Your task to perform on an android device: turn notification dots on Image 0: 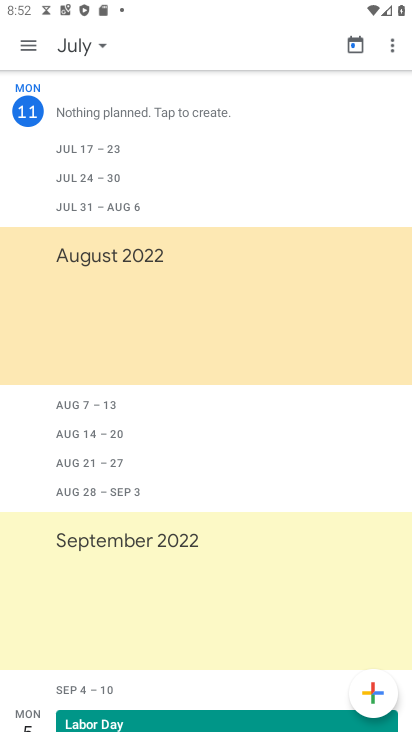
Step 0: press home button
Your task to perform on an android device: turn notification dots on Image 1: 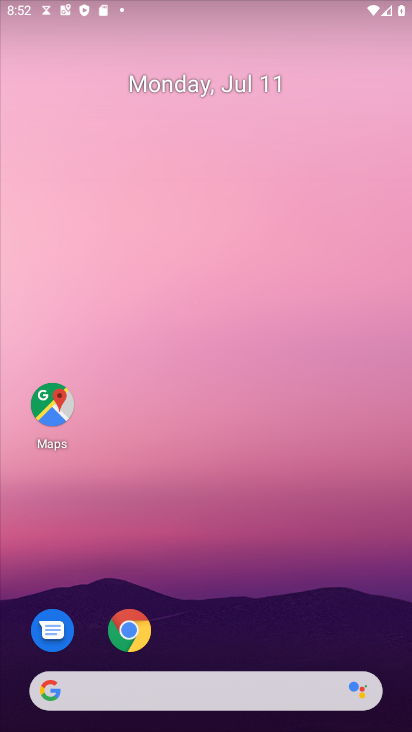
Step 1: drag from (225, 649) to (267, 4)
Your task to perform on an android device: turn notification dots on Image 2: 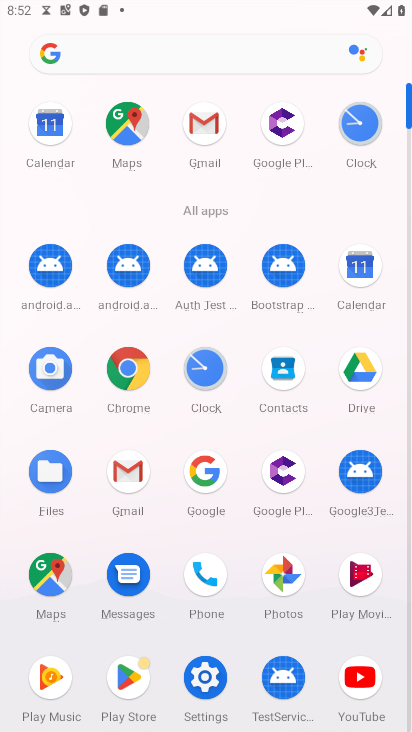
Step 2: click (203, 676)
Your task to perform on an android device: turn notification dots on Image 3: 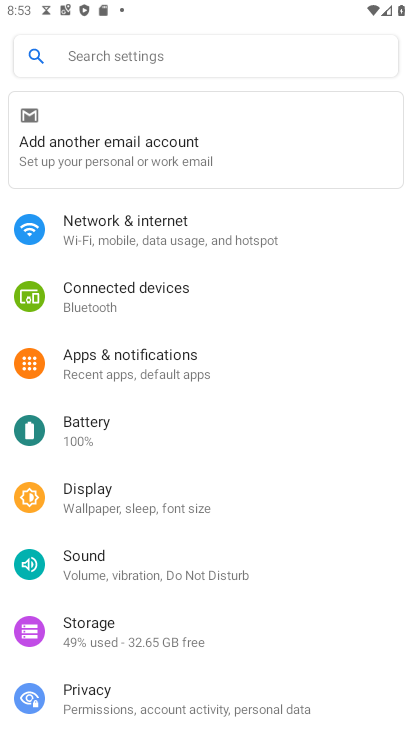
Step 3: click (223, 346)
Your task to perform on an android device: turn notification dots on Image 4: 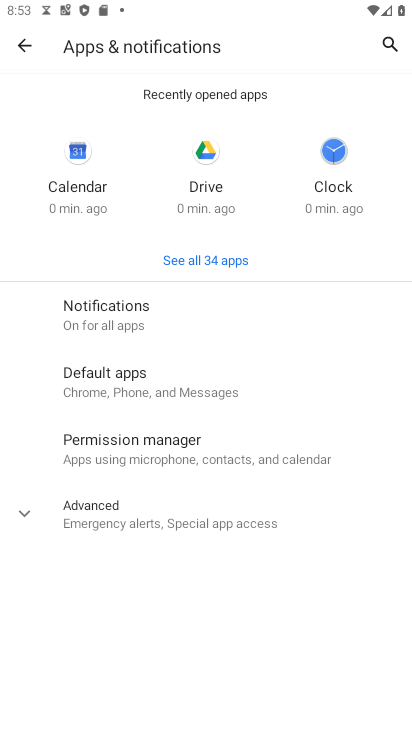
Step 4: click (164, 319)
Your task to perform on an android device: turn notification dots on Image 5: 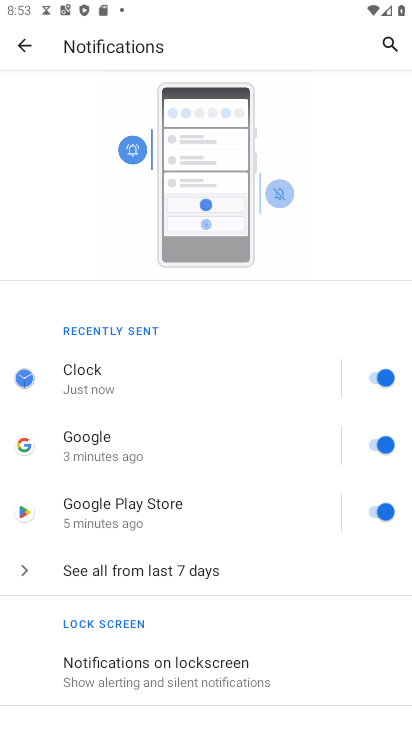
Step 5: drag from (180, 648) to (210, 351)
Your task to perform on an android device: turn notification dots on Image 6: 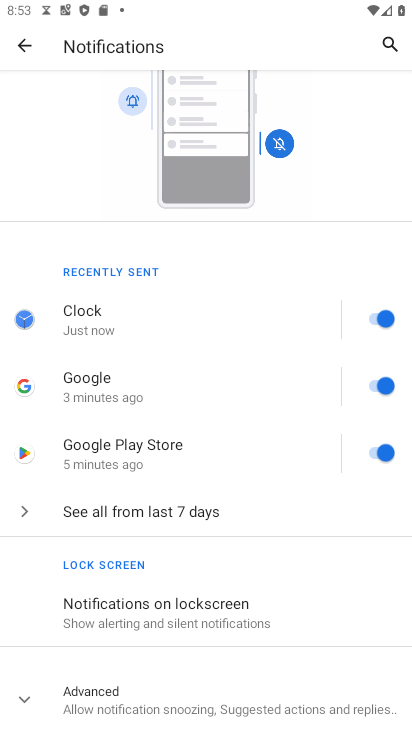
Step 6: click (96, 700)
Your task to perform on an android device: turn notification dots on Image 7: 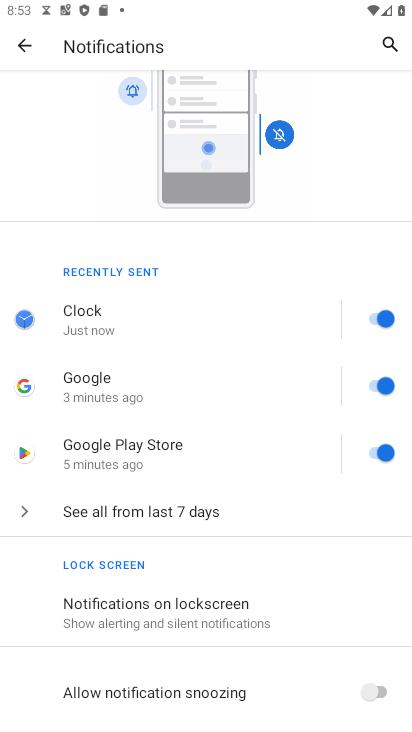
Step 7: task complete